Your task to perform on an android device: change your default location settings in chrome Image 0: 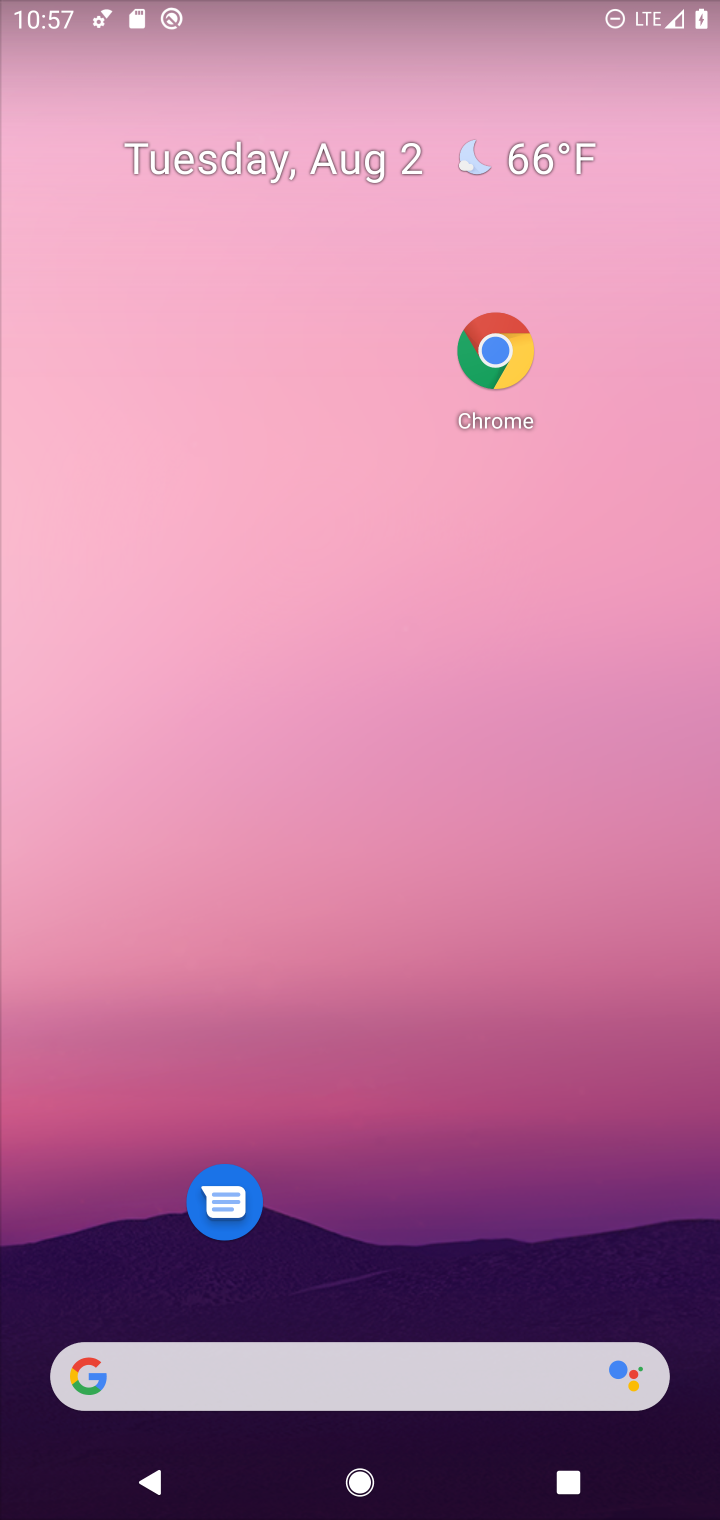
Step 0: click (494, 362)
Your task to perform on an android device: change your default location settings in chrome Image 1: 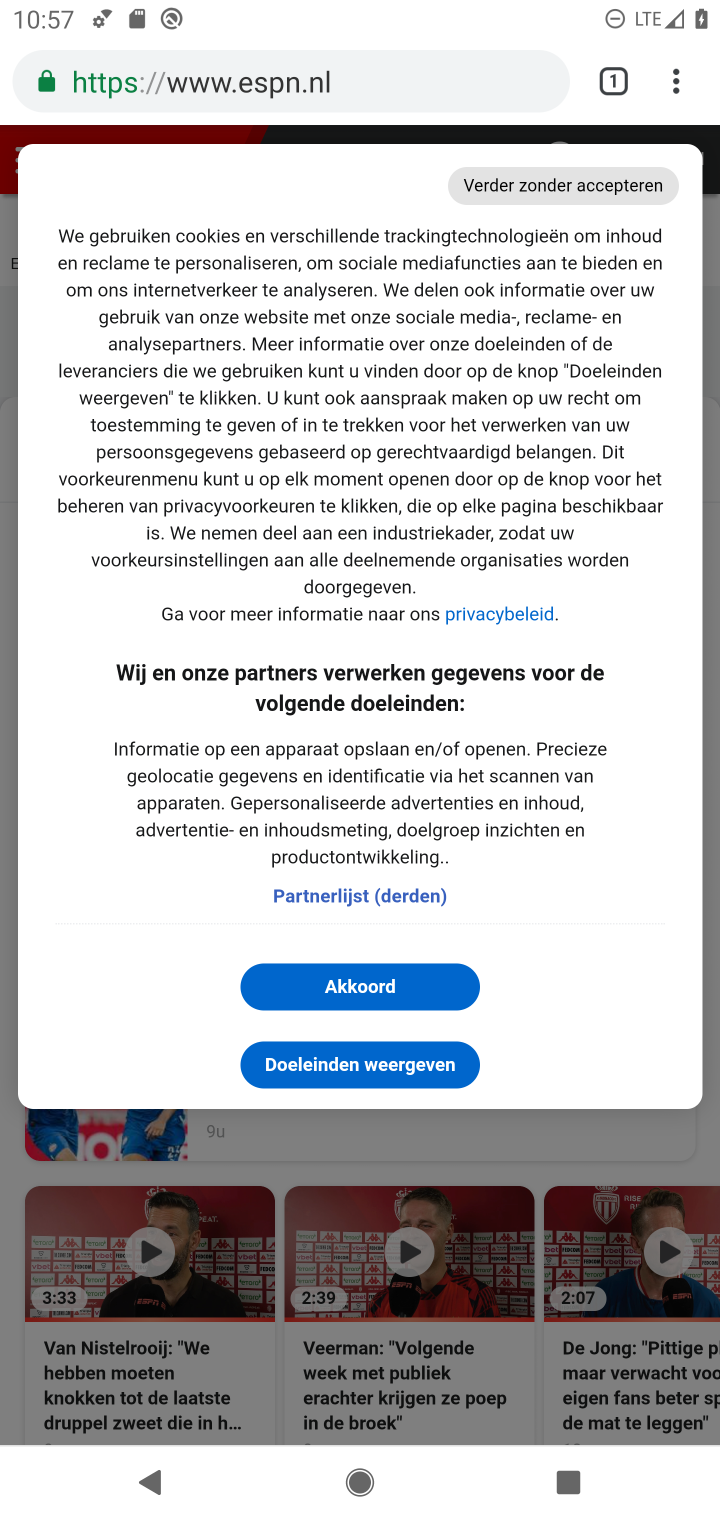
Step 1: drag from (679, 76) to (388, 995)
Your task to perform on an android device: change your default location settings in chrome Image 2: 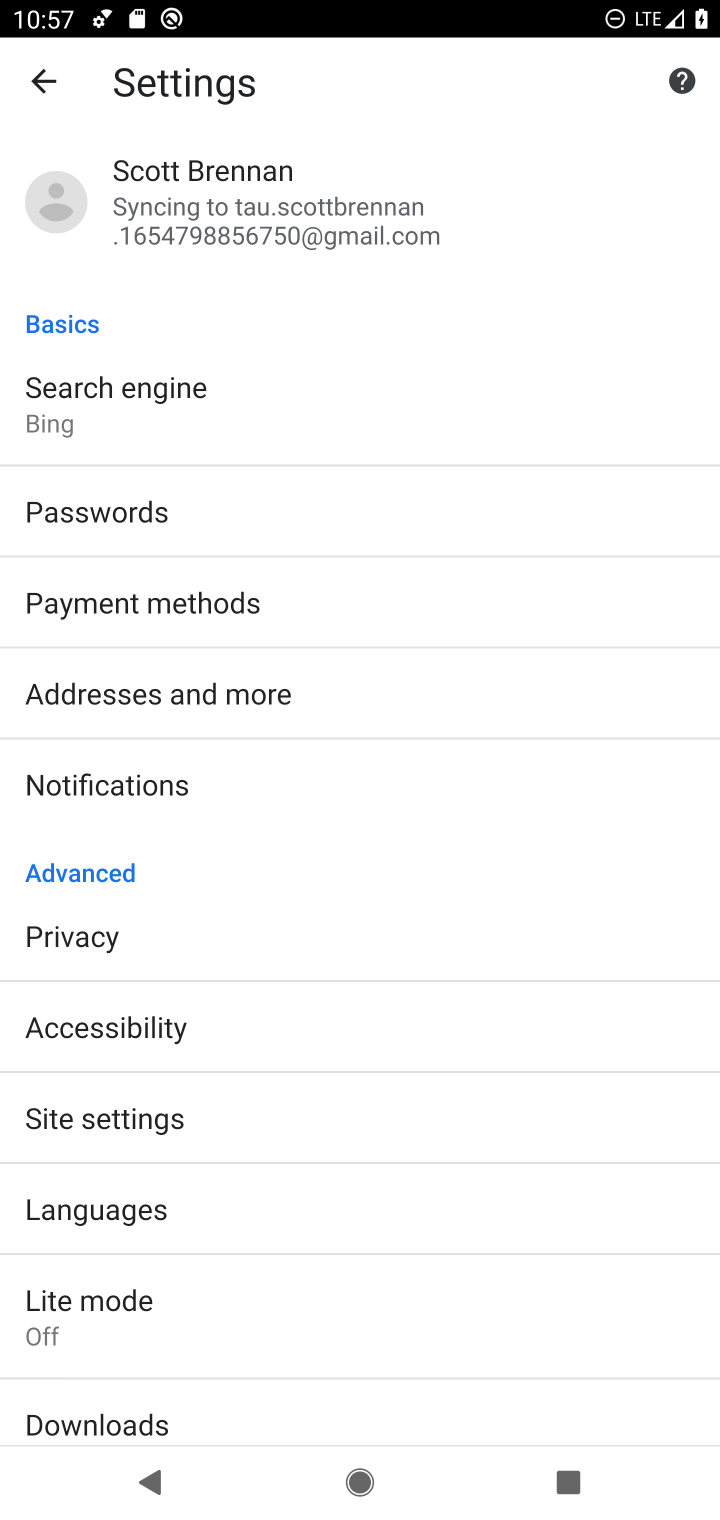
Step 2: click (69, 1112)
Your task to perform on an android device: change your default location settings in chrome Image 3: 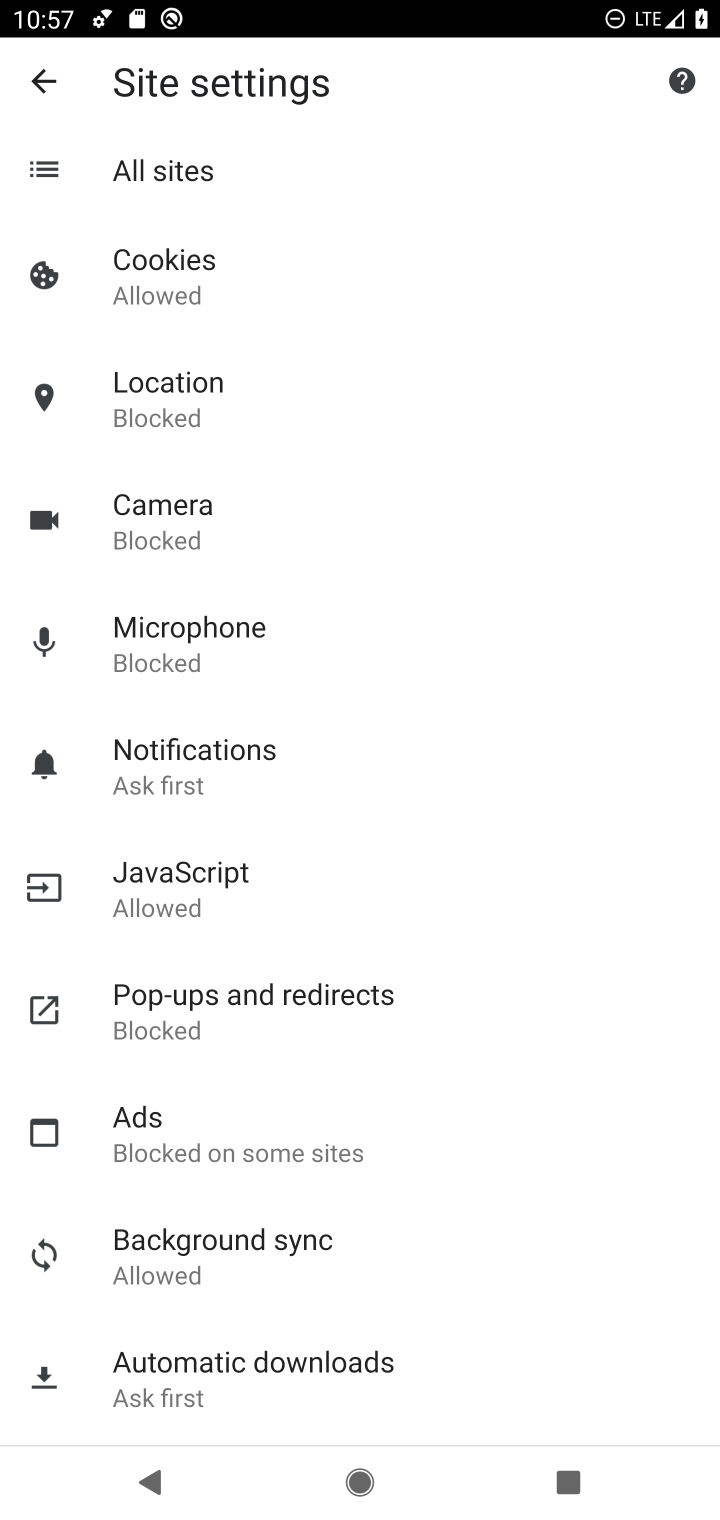
Step 3: click (160, 401)
Your task to perform on an android device: change your default location settings in chrome Image 4: 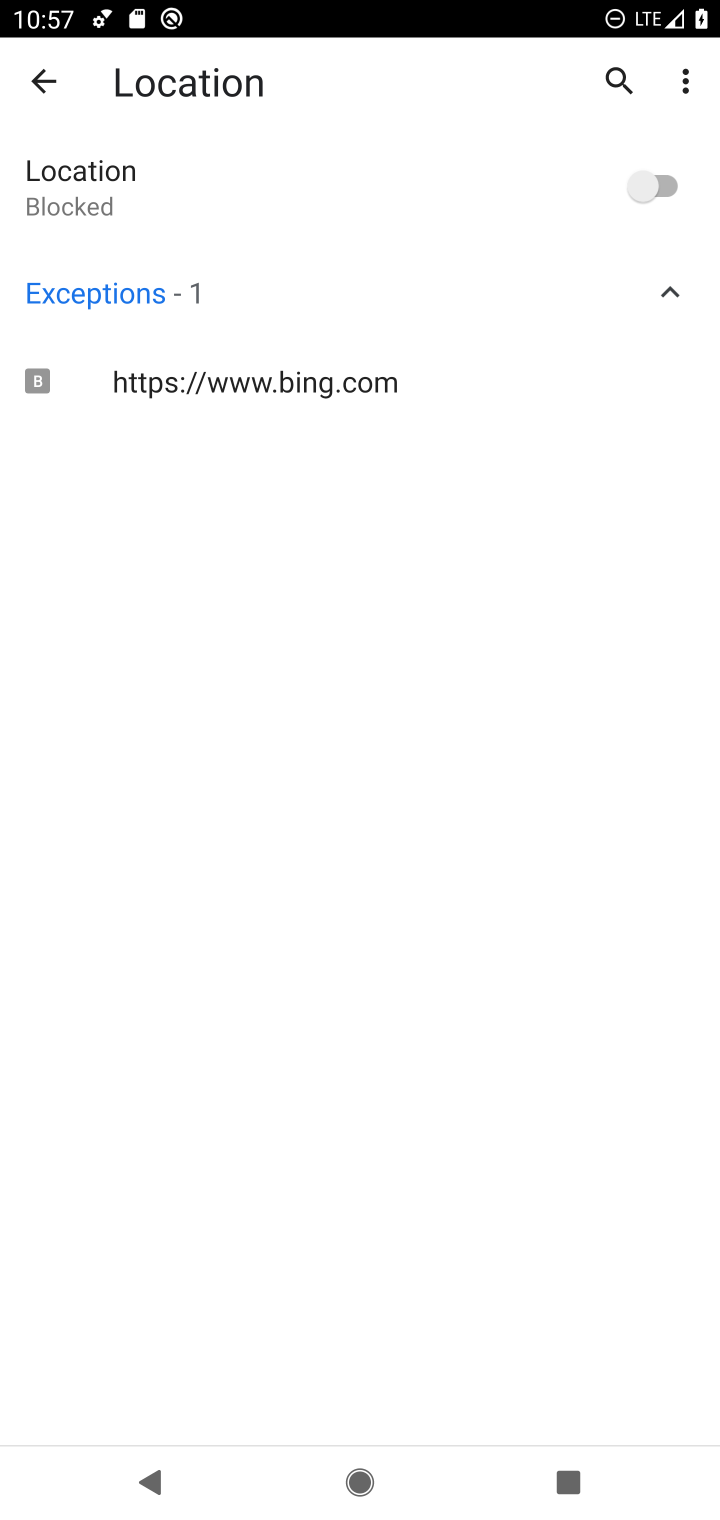
Step 4: click (627, 181)
Your task to perform on an android device: change your default location settings in chrome Image 5: 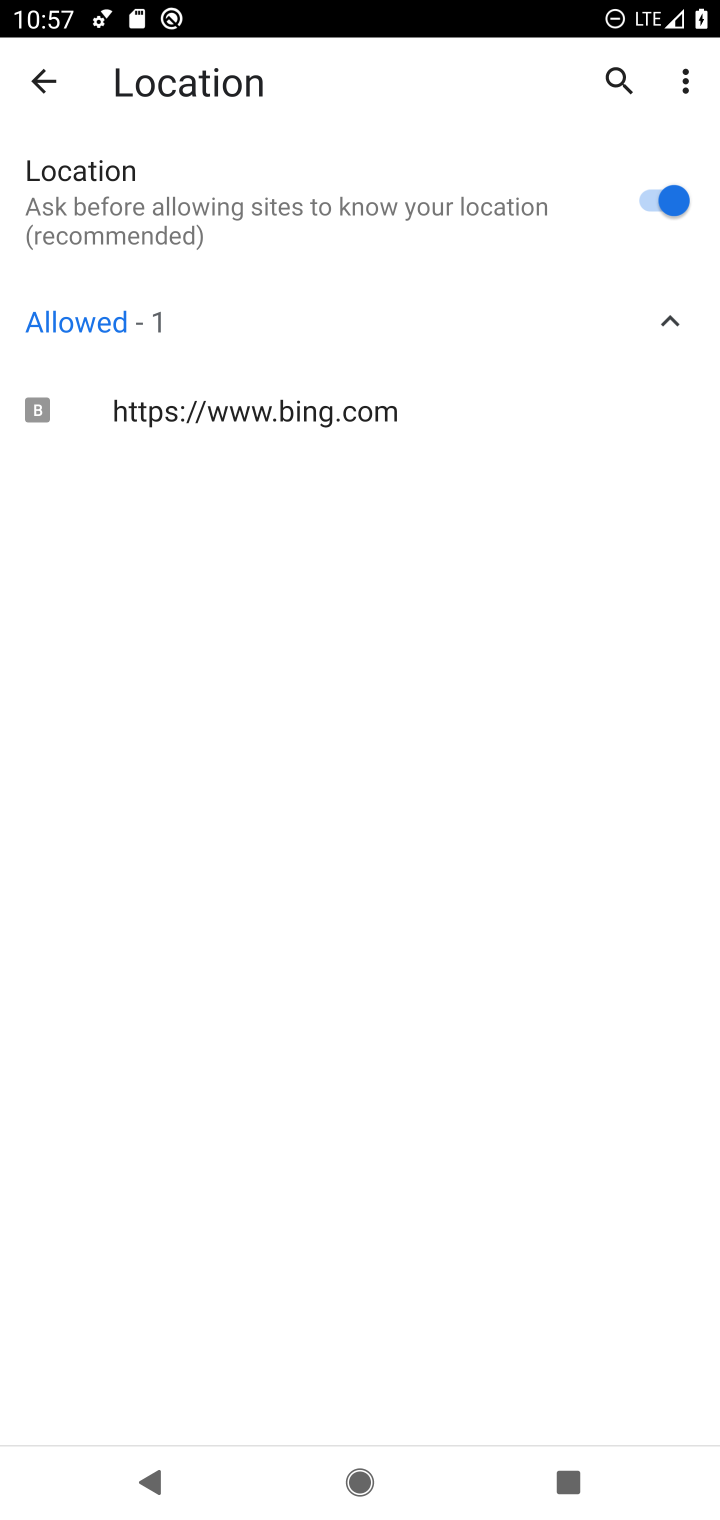
Step 5: task complete